Your task to perform on an android device: Go to internet settings Image 0: 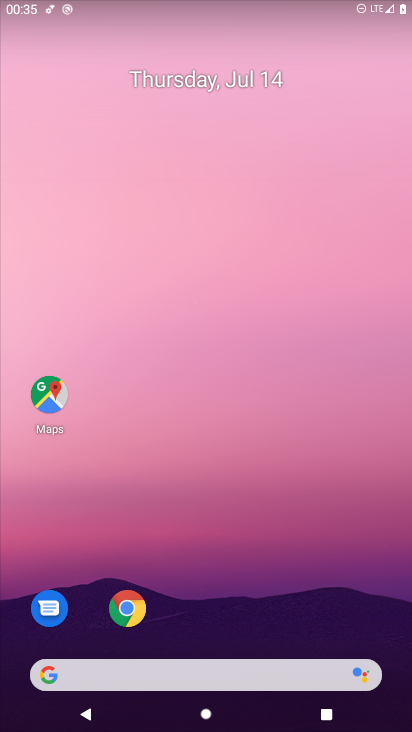
Step 0: press home button
Your task to perform on an android device: Go to internet settings Image 1: 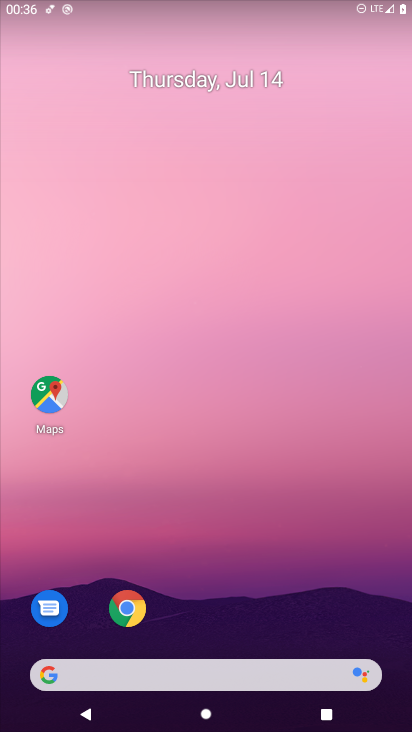
Step 1: drag from (219, 493) to (210, 12)
Your task to perform on an android device: Go to internet settings Image 2: 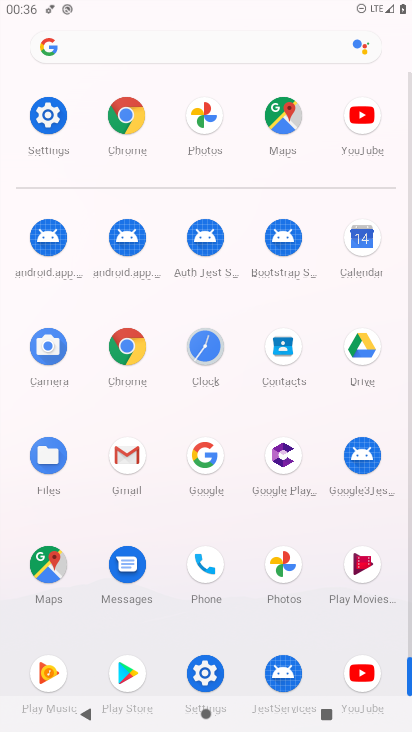
Step 2: click (44, 116)
Your task to perform on an android device: Go to internet settings Image 3: 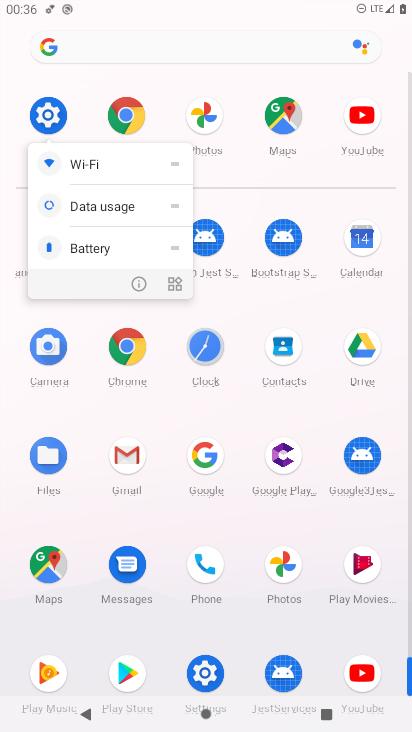
Step 3: click (44, 116)
Your task to perform on an android device: Go to internet settings Image 4: 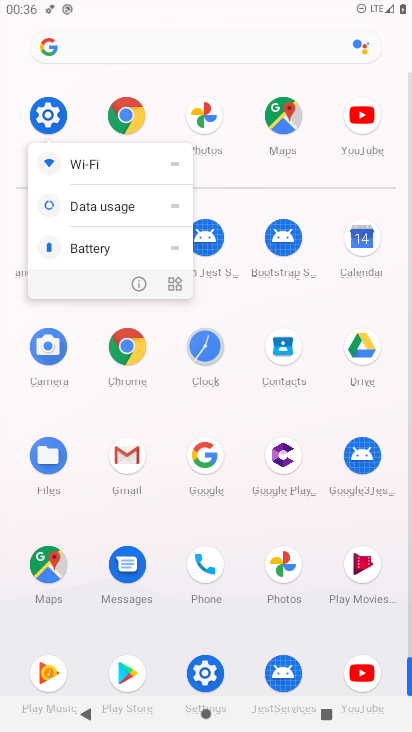
Step 4: click (44, 116)
Your task to perform on an android device: Go to internet settings Image 5: 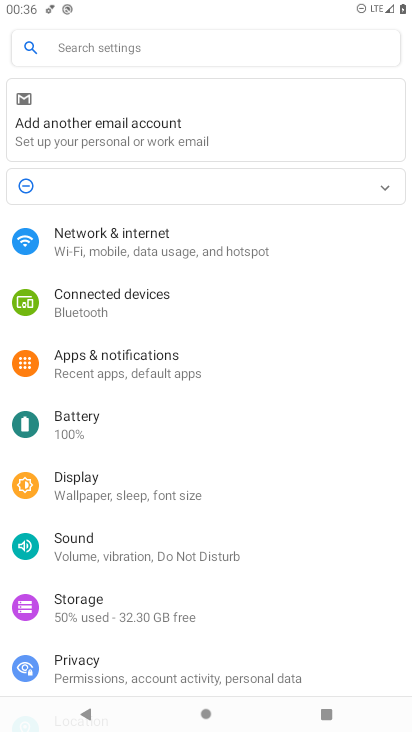
Step 5: click (114, 252)
Your task to perform on an android device: Go to internet settings Image 6: 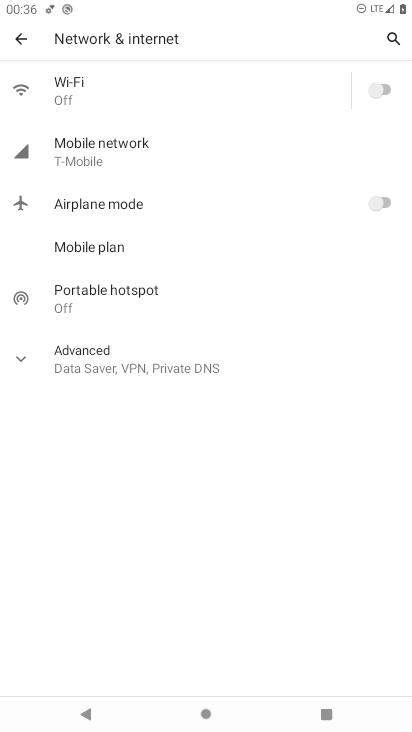
Step 6: task complete